Your task to perform on an android device: Open Yahoo.com Image 0: 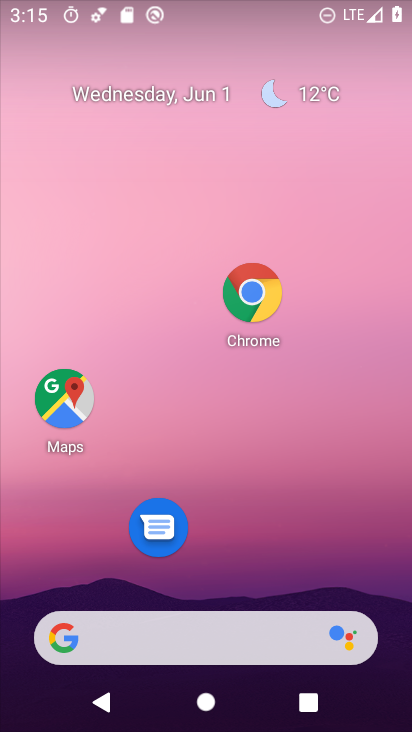
Step 0: drag from (258, 487) to (280, 57)
Your task to perform on an android device: Open Yahoo.com Image 1: 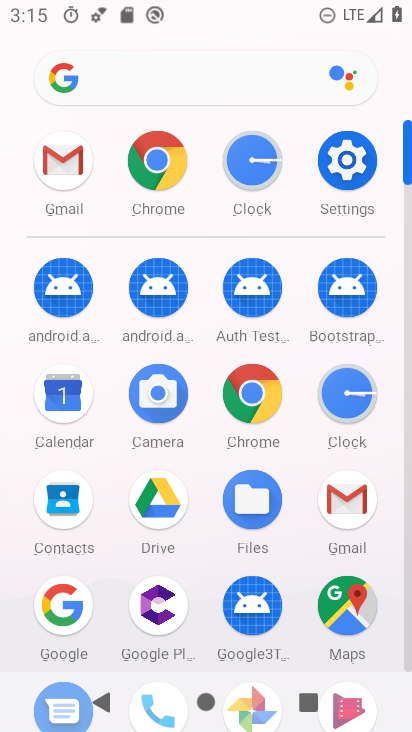
Step 1: click (156, 187)
Your task to perform on an android device: Open Yahoo.com Image 2: 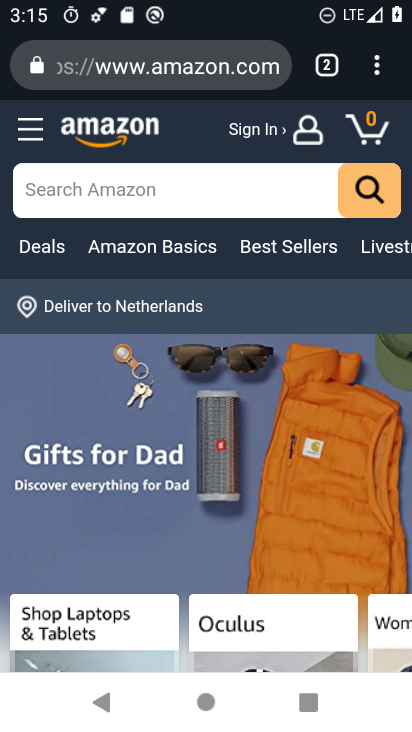
Step 2: click (209, 65)
Your task to perform on an android device: Open Yahoo.com Image 3: 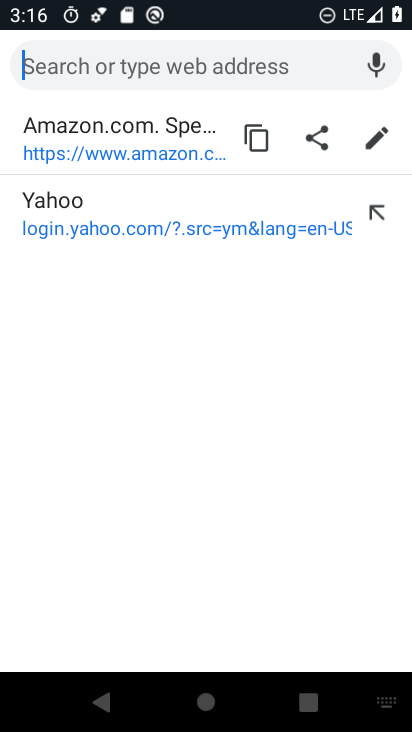
Step 3: click (189, 219)
Your task to perform on an android device: Open Yahoo.com Image 4: 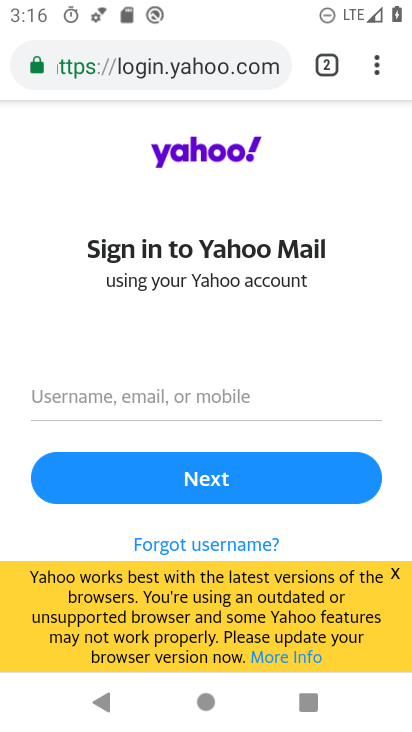
Step 4: task complete